Your task to perform on an android device: turn on javascript in the chrome app Image 0: 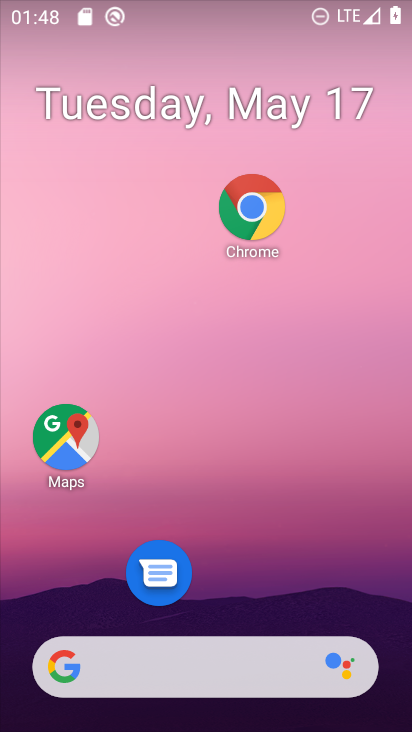
Step 0: drag from (250, 643) to (341, 28)
Your task to perform on an android device: turn on javascript in the chrome app Image 1: 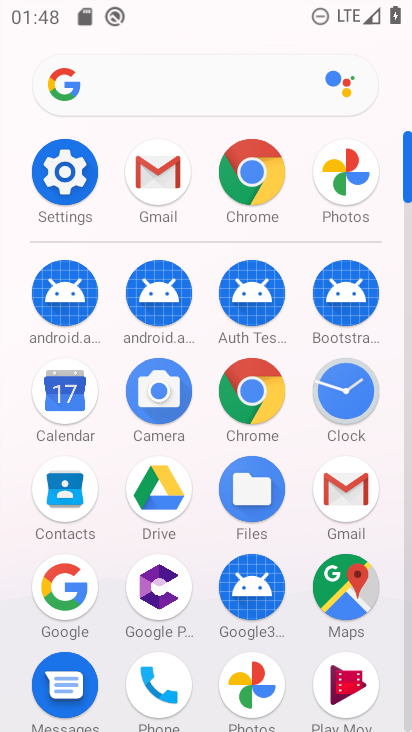
Step 1: click (241, 399)
Your task to perform on an android device: turn on javascript in the chrome app Image 2: 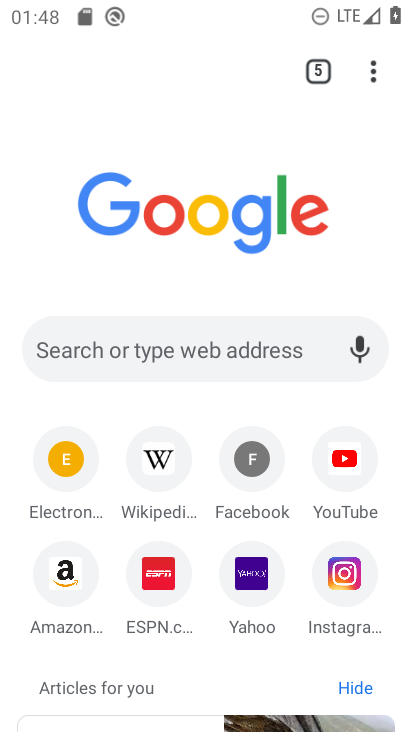
Step 2: click (372, 70)
Your task to perform on an android device: turn on javascript in the chrome app Image 3: 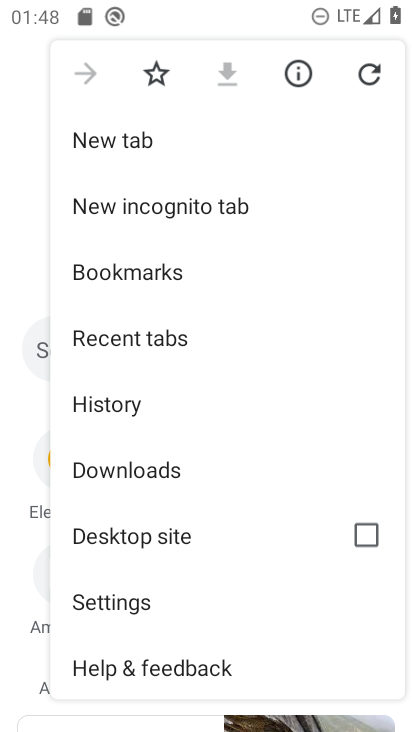
Step 3: click (160, 602)
Your task to perform on an android device: turn on javascript in the chrome app Image 4: 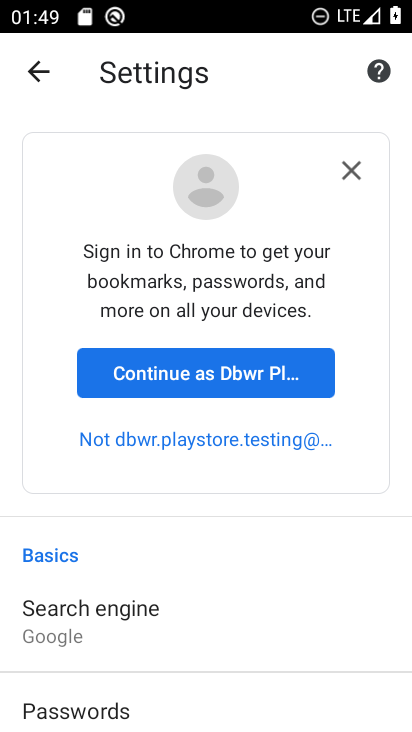
Step 4: click (97, 476)
Your task to perform on an android device: turn on javascript in the chrome app Image 5: 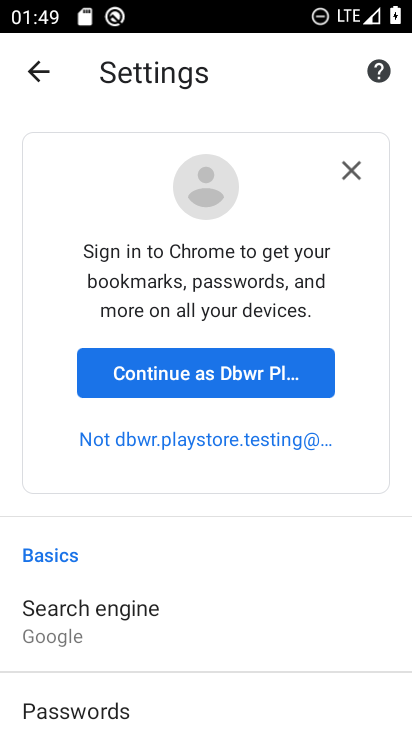
Step 5: drag from (199, 601) to (187, 33)
Your task to perform on an android device: turn on javascript in the chrome app Image 6: 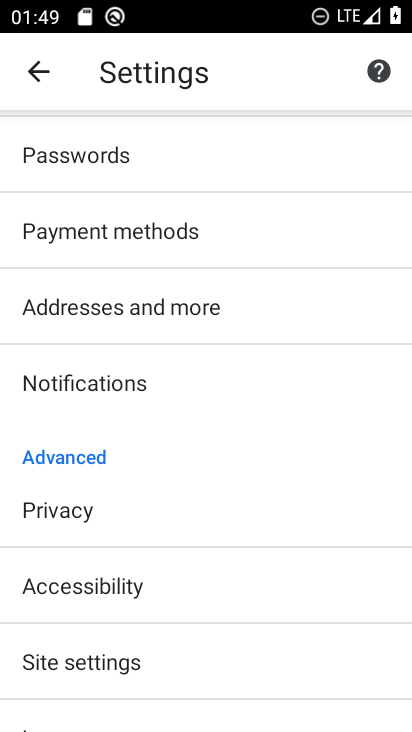
Step 6: click (112, 658)
Your task to perform on an android device: turn on javascript in the chrome app Image 7: 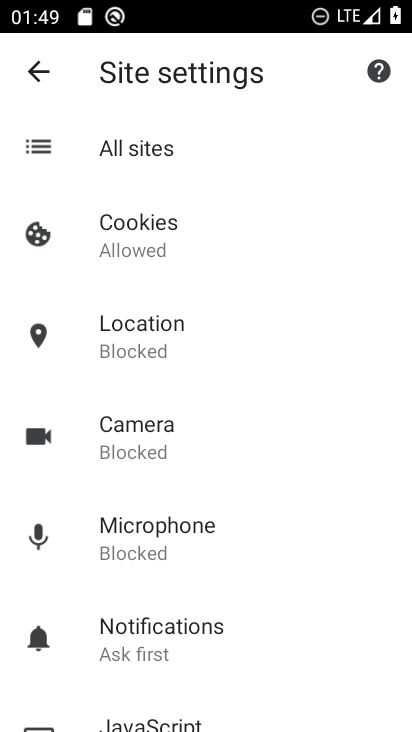
Step 7: drag from (216, 687) to (220, 318)
Your task to perform on an android device: turn on javascript in the chrome app Image 8: 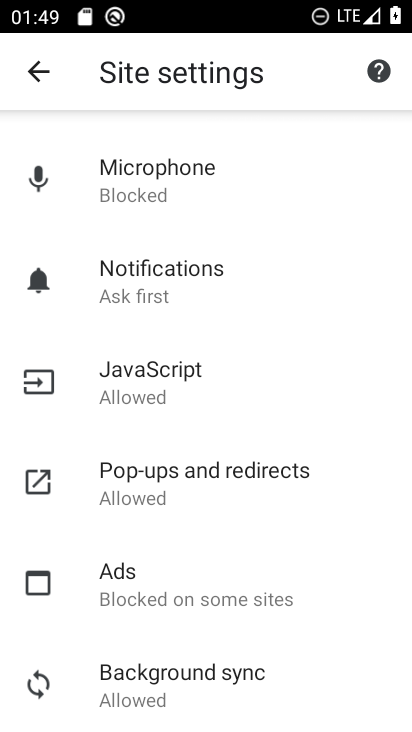
Step 8: click (185, 390)
Your task to perform on an android device: turn on javascript in the chrome app Image 9: 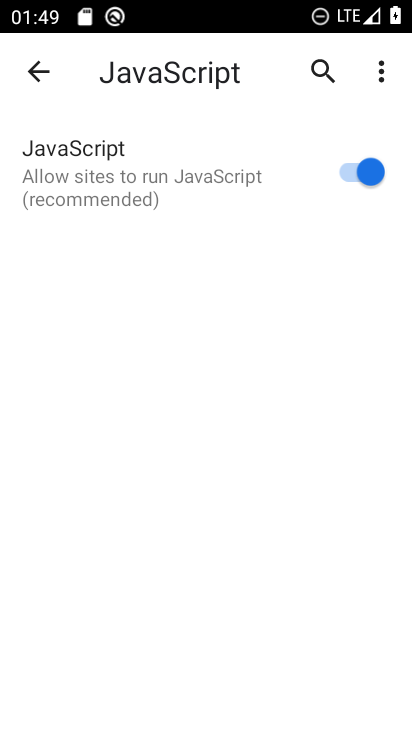
Step 9: task complete